Your task to perform on an android device: change notification settings in the gmail app Image 0: 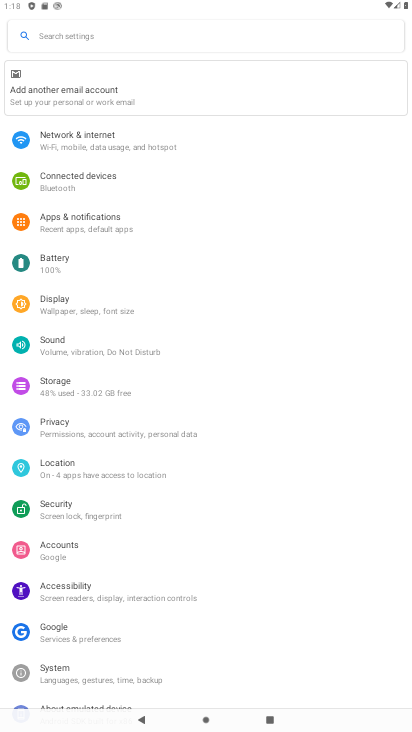
Step 0: press home button
Your task to perform on an android device: change notification settings in the gmail app Image 1: 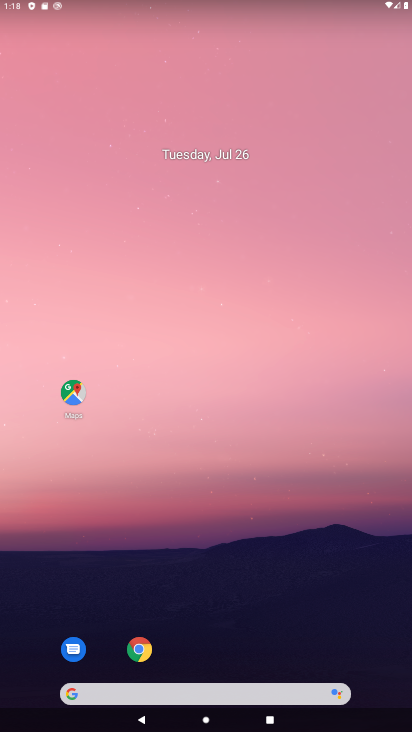
Step 1: drag from (191, 597) to (208, 114)
Your task to perform on an android device: change notification settings in the gmail app Image 2: 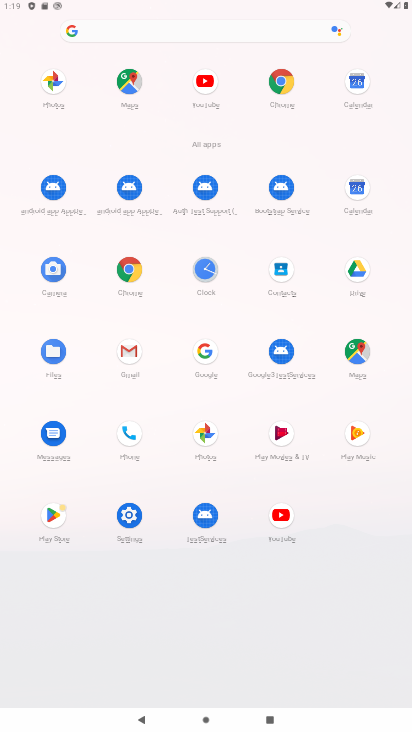
Step 2: click (130, 533)
Your task to perform on an android device: change notification settings in the gmail app Image 3: 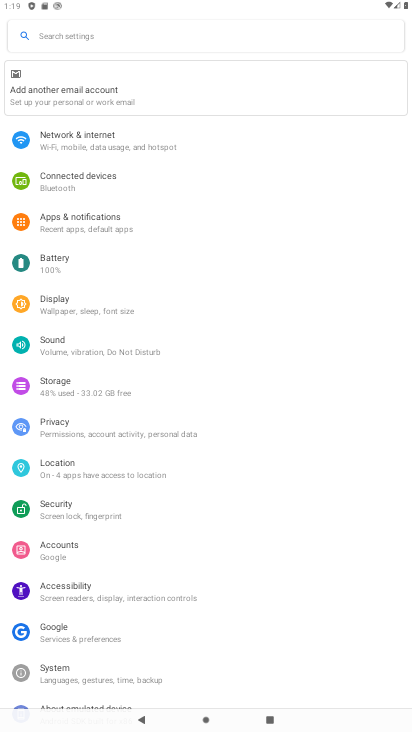
Step 3: press back button
Your task to perform on an android device: change notification settings in the gmail app Image 4: 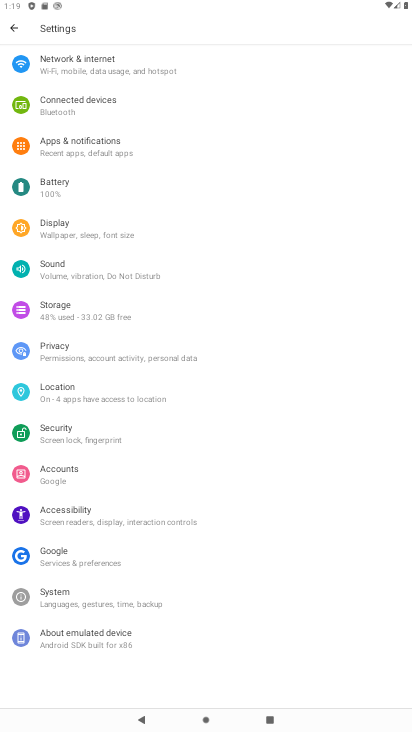
Step 4: press back button
Your task to perform on an android device: change notification settings in the gmail app Image 5: 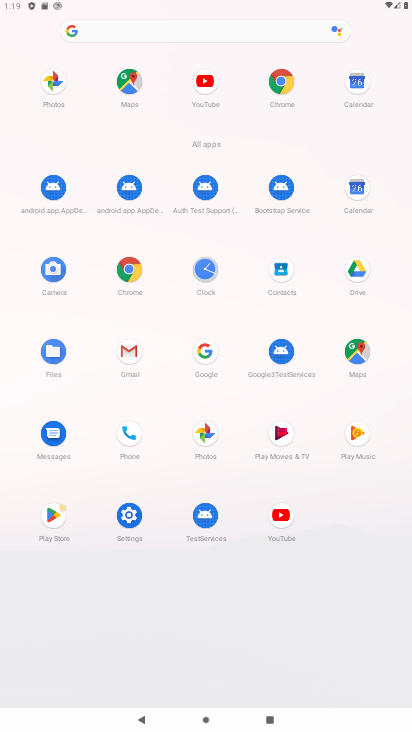
Step 5: click (129, 362)
Your task to perform on an android device: change notification settings in the gmail app Image 6: 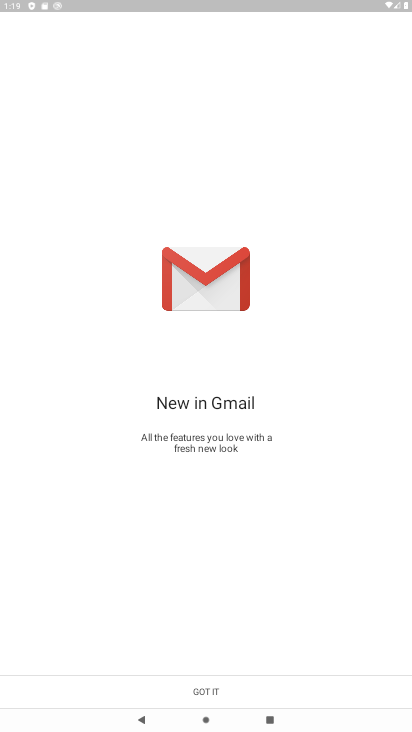
Step 6: click (209, 689)
Your task to perform on an android device: change notification settings in the gmail app Image 7: 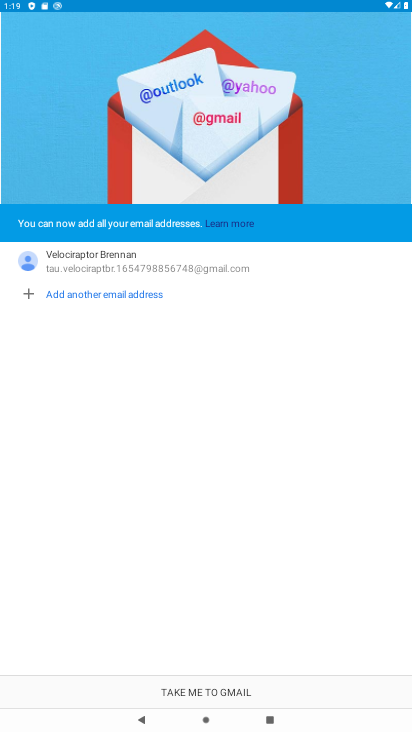
Step 7: click (209, 689)
Your task to perform on an android device: change notification settings in the gmail app Image 8: 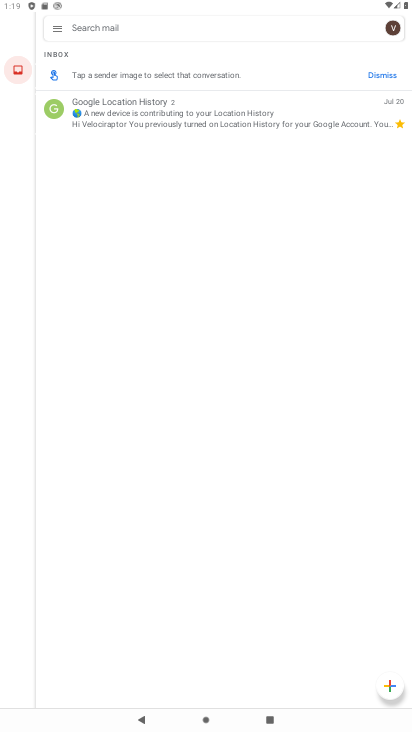
Step 8: click (57, 29)
Your task to perform on an android device: change notification settings in the gmail app Image 9: 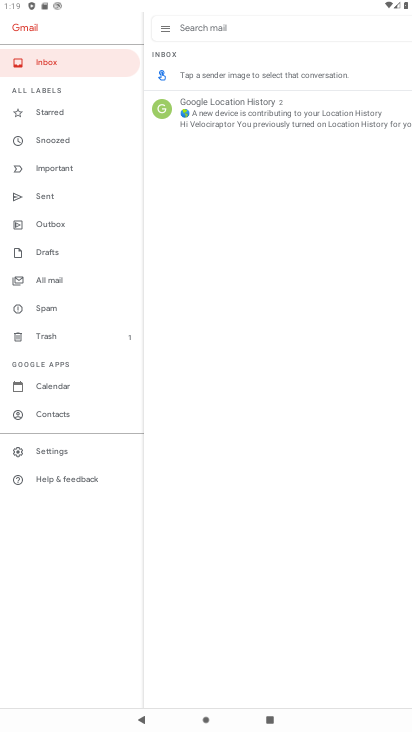
Step 9: click (53, 446)
Your task to perform on an android device: change notification settings in the gmail app Image 10: 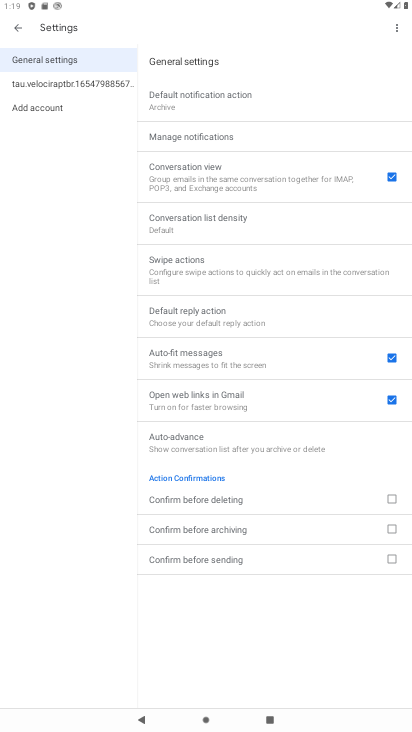
Step 10: click (79, 76)
Your task to perform on an android device: change notification settings in the gmail app Image 11: 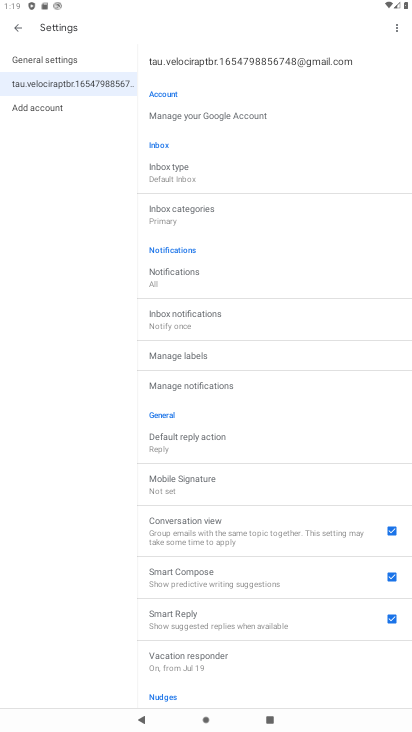
Step 11: click (194, 390)
Your task to perform on an android device: change notification settings in the gmail app Image 12: 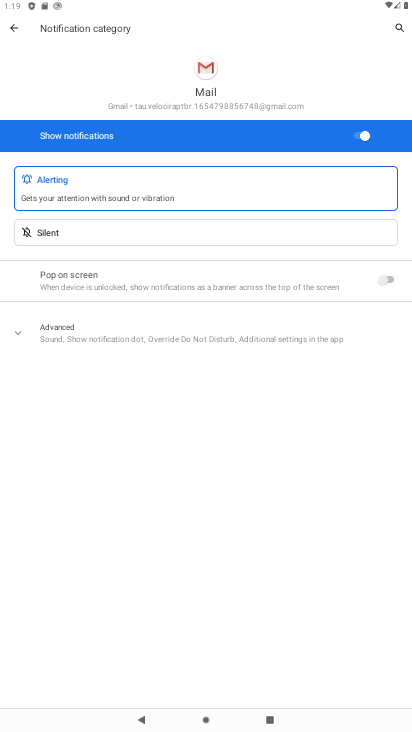
Step 12: click (351, 135)
Your task to perform on an android device: change notification settings in the gmail app Image 13: 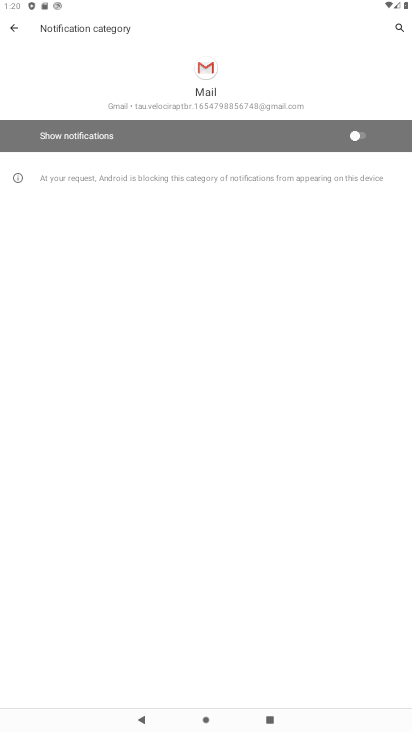
Step 13: task complete